Your task to perform on an android device: star an email in the gmail app Image 0: 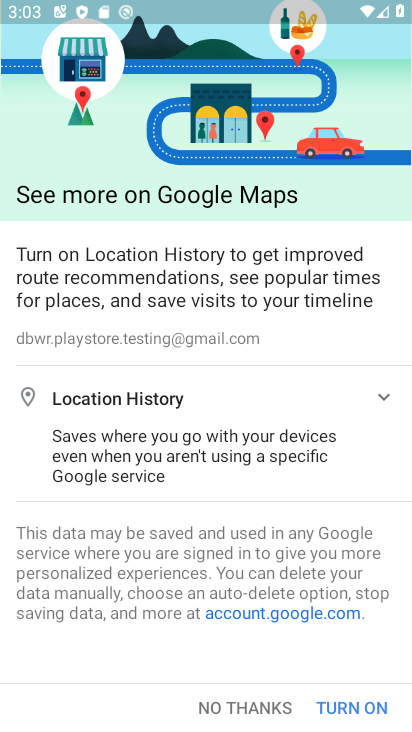
Step 0: press home button
Your task to perform on an android device: star an email in the gmail app Image 1: 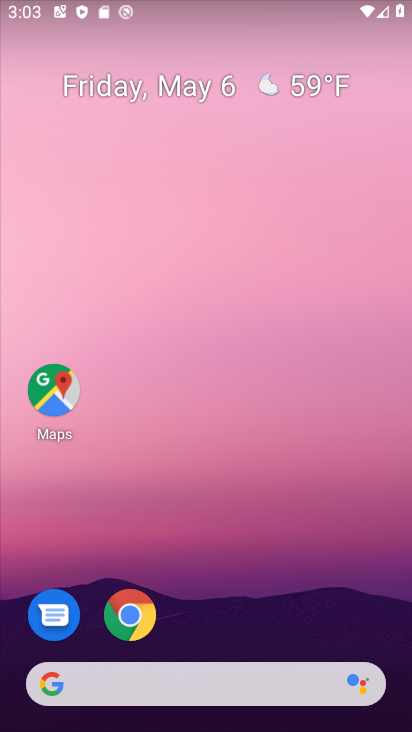
Step 1: drag from (225, 590) to (225, 229)
Your task to perform on an android device: star an email in the gmail app Image 2: 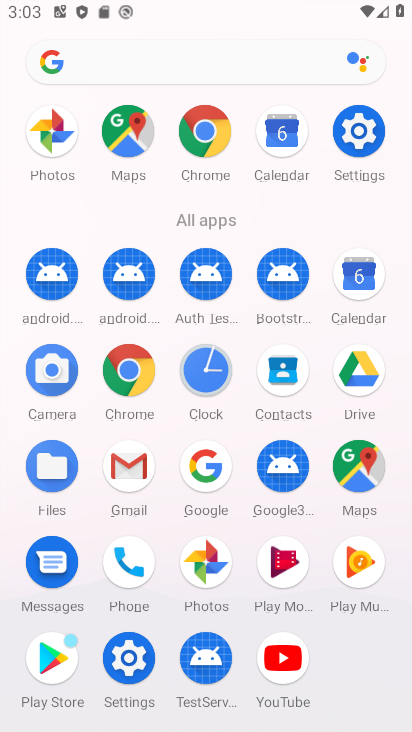
Step 2: click (118, 459)
Your task to perform on an android device: star an email in the gmail app Image 3: 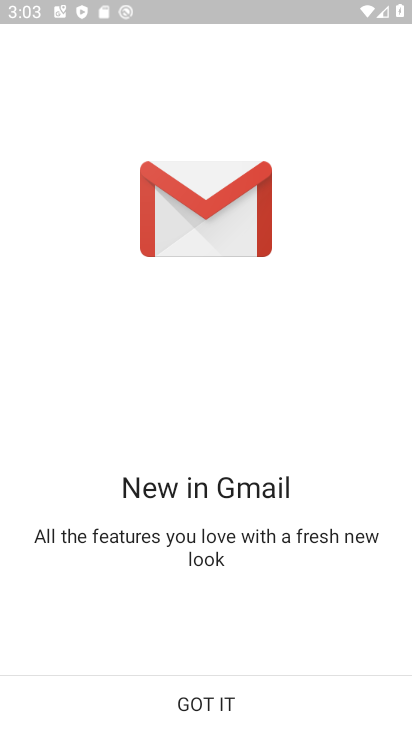
Step 3: click (174, 687)
Your task to perform on an android device: star an email in the gmail app Image 4: 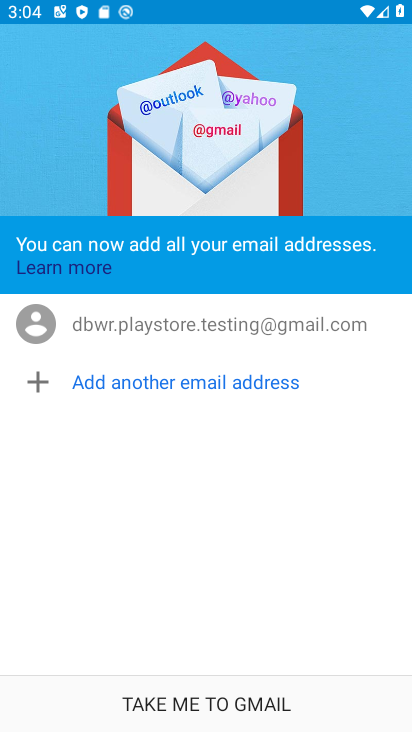
Step 4: click (174, 687)
Your task to perform on an android device: star an email in the gmail app Image 5: 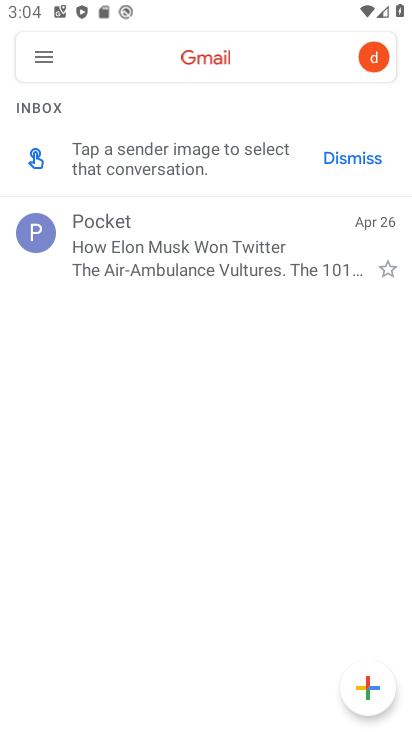
Step 5: click (36, 53)
Your task to perform on an android device: star an email in the gmail app Image 6: 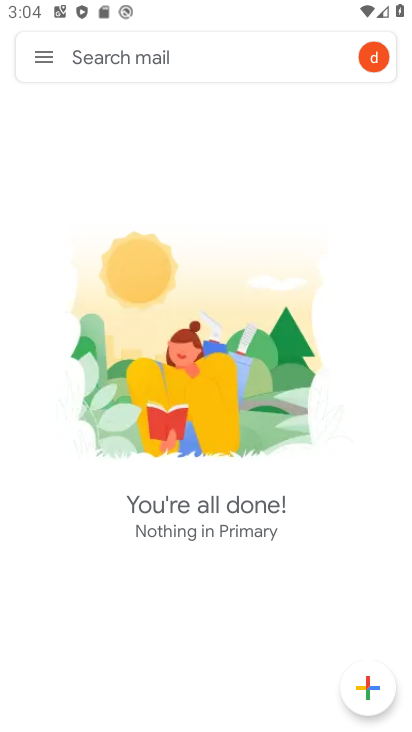
Step 6: click (38, 51)
Your task to perform on an android device: star an email in the gmail app Image 7: 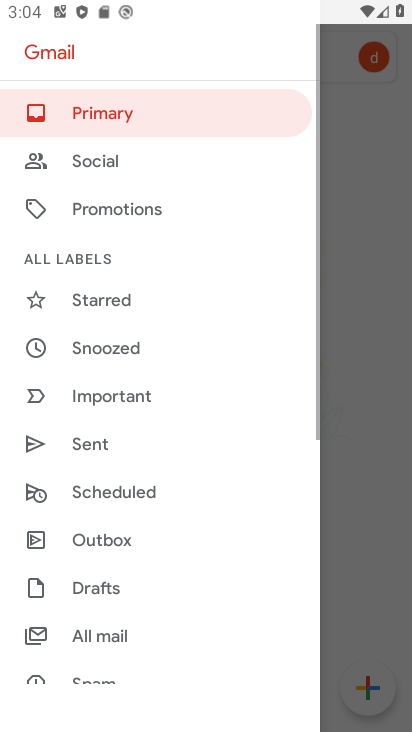
Step 7: click (84, 296)
Your task to perform on an android device: star an email in the gmail app Image 8: 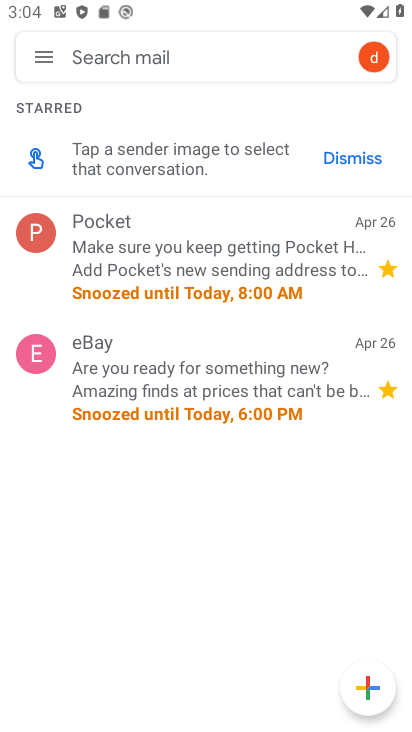
Step 8: task complete